Your task to perform on an android device: install app "ColorNote Notepad Notes" Image 0: 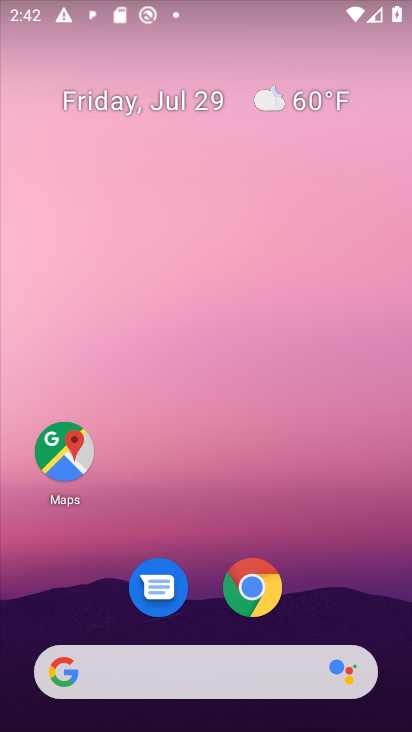
Step 0: drag from (146, 715) to (154, 1)
Your task to perform on an android device: install app "ColorNote Notepad Notes" Image 1: 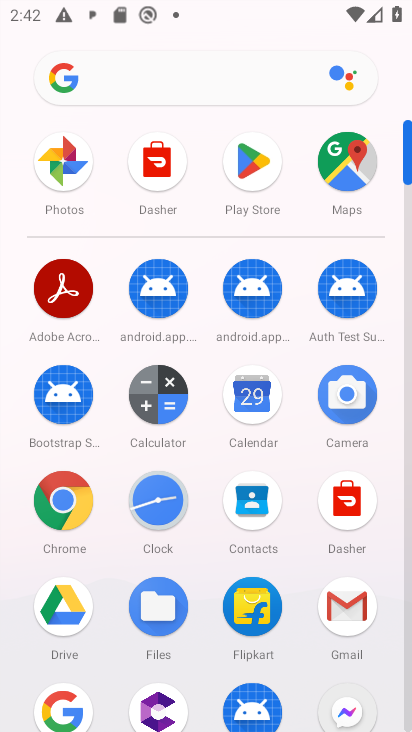
Step 1: click (255, 172)
Your task to perform on an android device: install app "ColorNote Notepad Notes" Image 2: 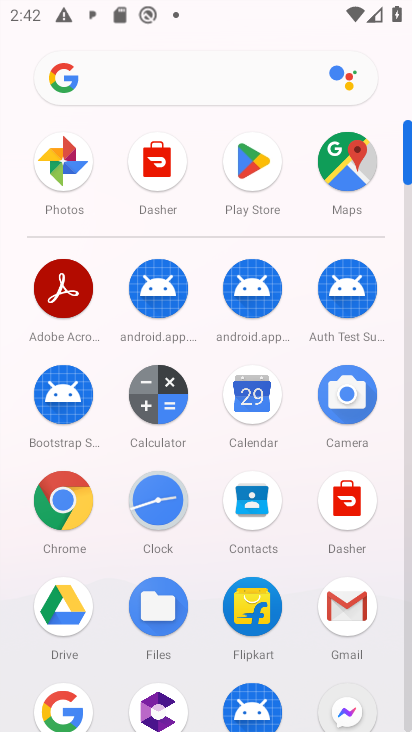
Step 2: click (255, 172)
Your task to perform on an android device: install app "ColorNote Notepad Notes" Image 3: 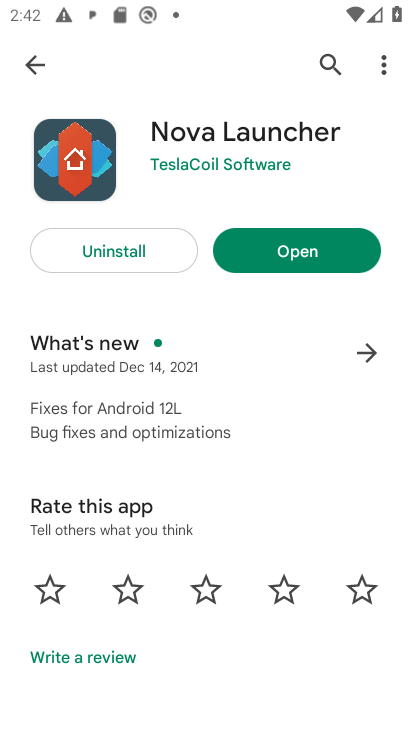
Step 3: click (335, 62)
Your task to perform on an android device: install app "ColorNote Notepad Notes" Image 4: 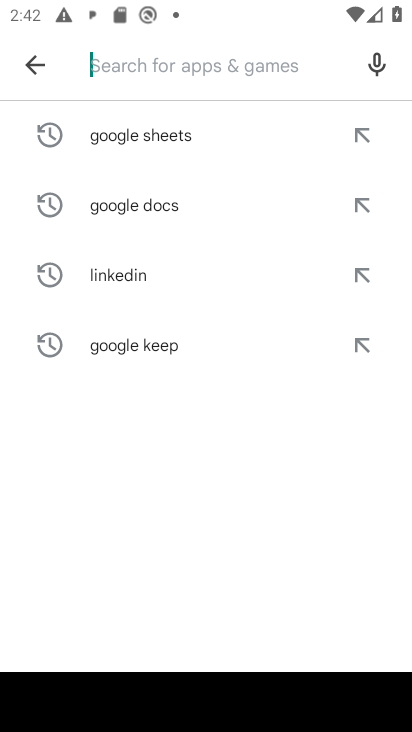
Step 4: type "ColorNote Notepad Notes"
Your task to perform on an android device: install app "ColorNote Notepad Notes" Image 5: 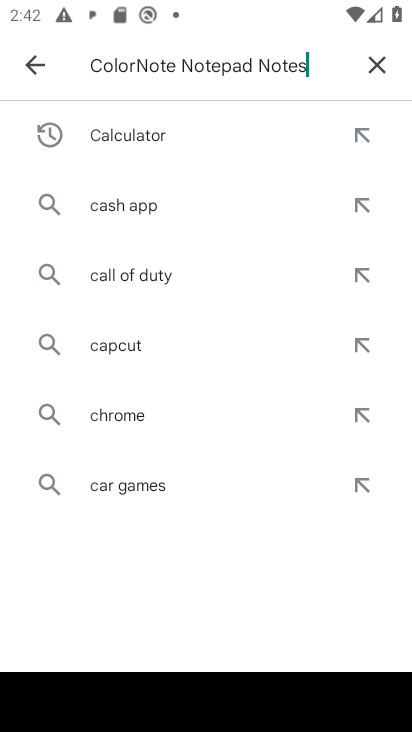
Step 5: type ""
Your task to perform on an android device: install app "ColorNote Notepad Notes" Image 6: 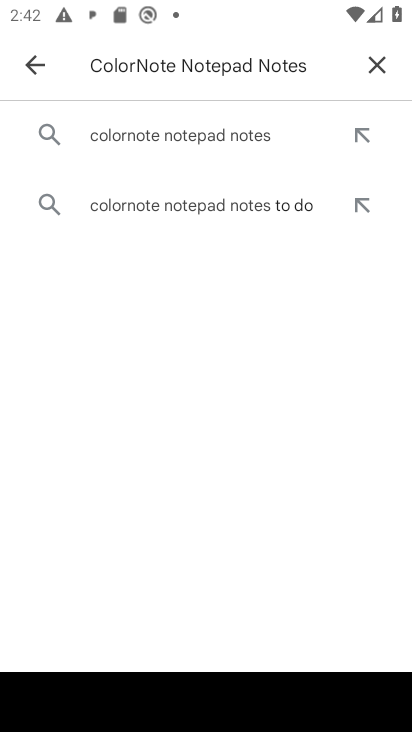
Step 6: press enter
Your task to perform on an android device: install app "ColorNote Notepad Notes" Image 7: 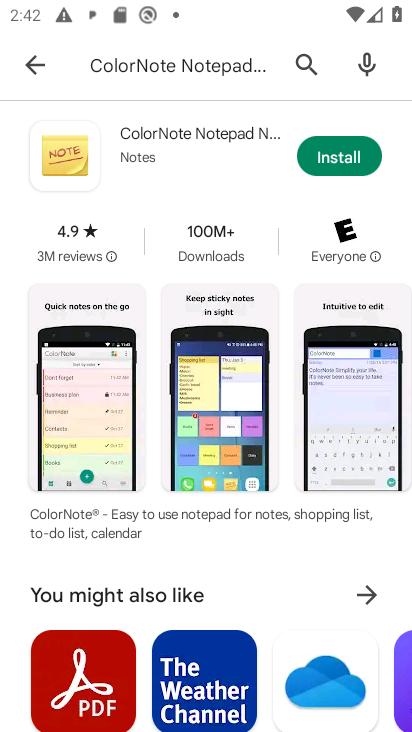
Step 7: click (361, 156)
Your task to perform on an android device: install app "ColorNote Notepad Notes" Image 8: 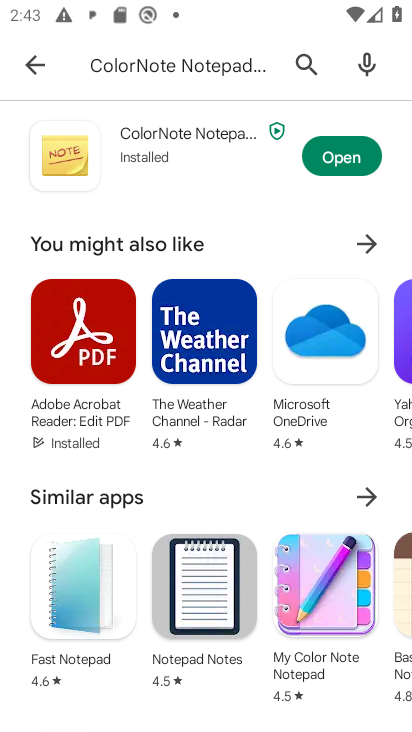
Step 8: task complete